Your task to perform on an android device: Open Reddit.com Image 0: 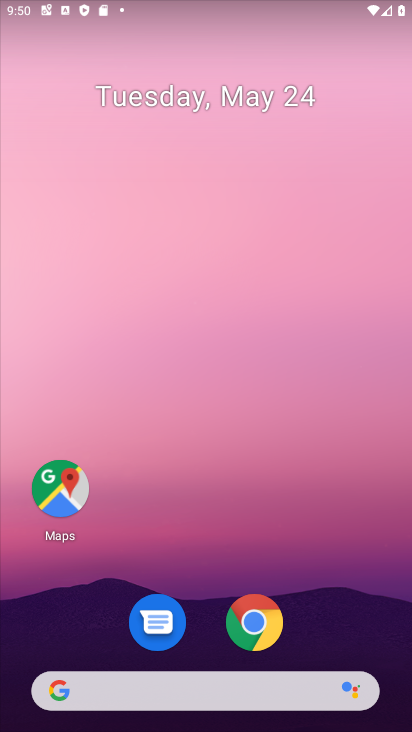
Step 0: drag from (271, 692) to (345, 240)
Your task to perform on an android device: Open Reddit.com Image 1: 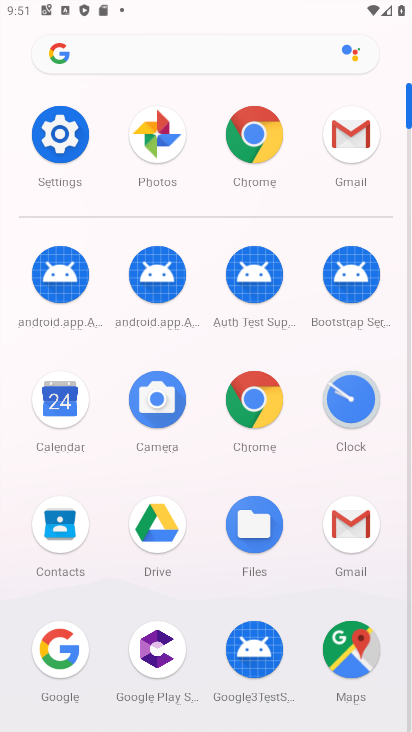
Step 1: click (247, 142)
Your task to perform on an android device: Open Reddit.com Image 2: 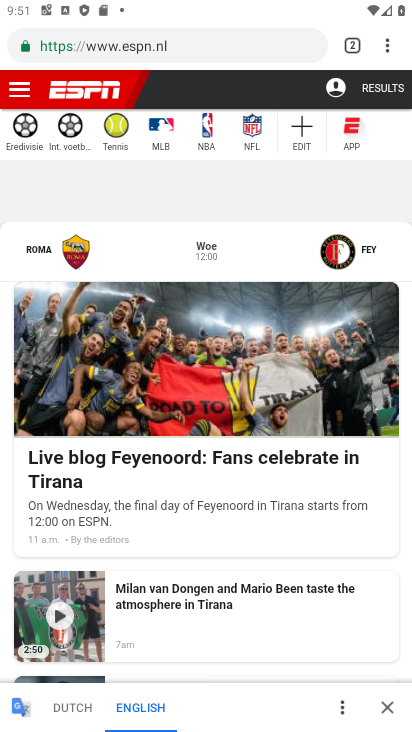
Step 2: click (161, 53)
Your task to perform on an android device: Open Reddit.com Image 3: 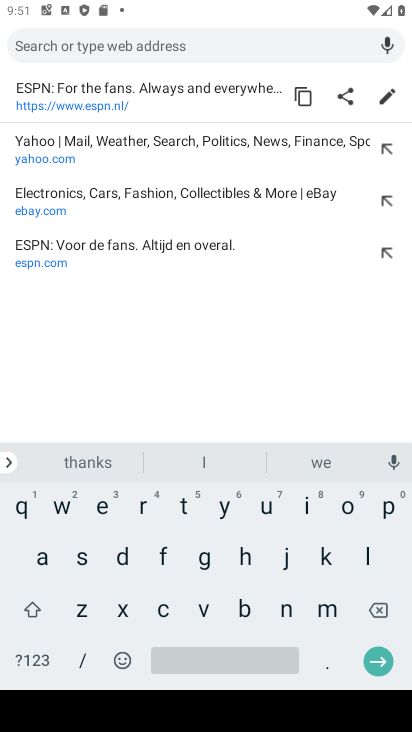
Step 3: click (138, 504)
Your task to perform on an android device: Open Reddit.com Image 4: 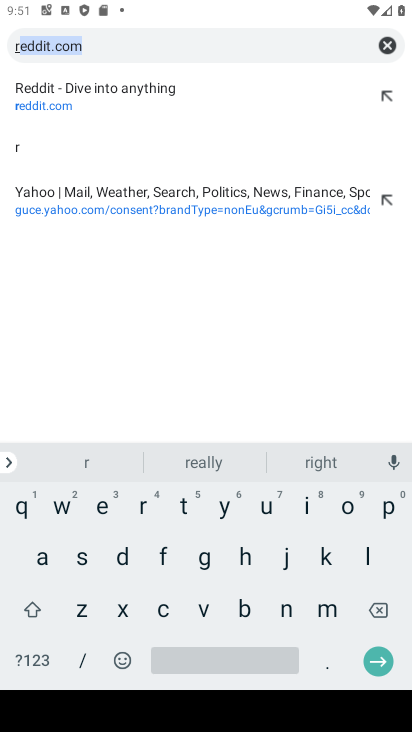
Step 4: click (120, 99)
Your task to perform on an android device: Open Reddit.com Image 5: 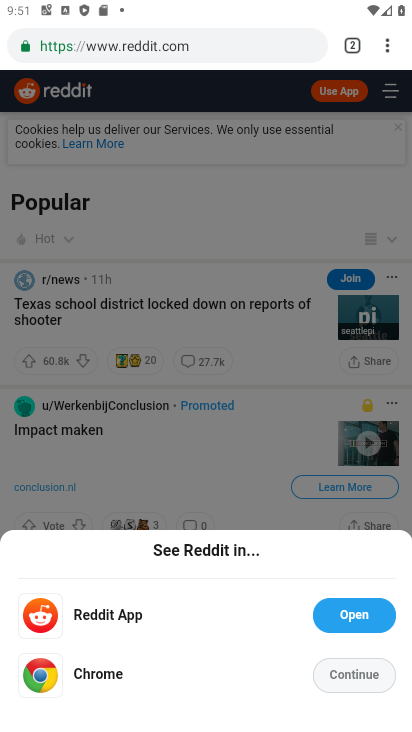
Step 5: click (194, 682)
Your task to perform on an android device: Open Reddit.com Image 6: 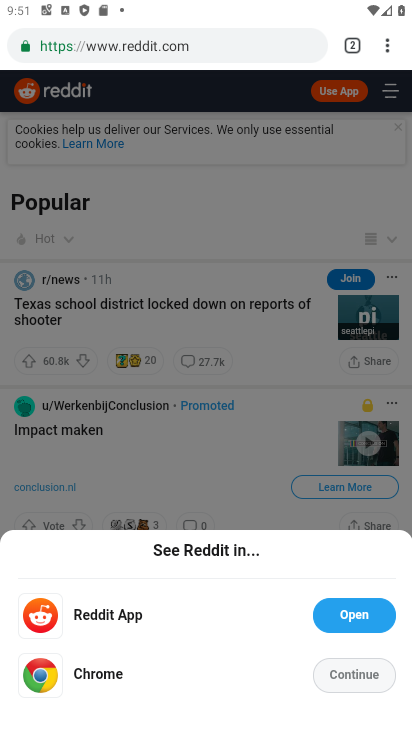
Step 6: click (340, 670)
Your task to perform on an android device: Open Reddit.com Image 7: 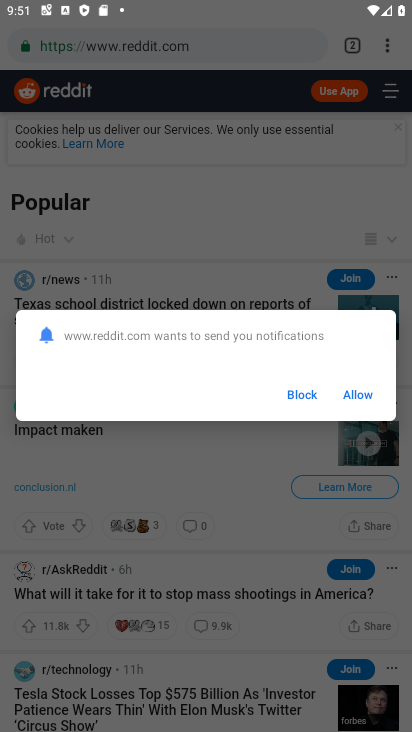
Step 7: click (288, 416)
Your task to perform on an android device: Open Reddit.com Image 8: 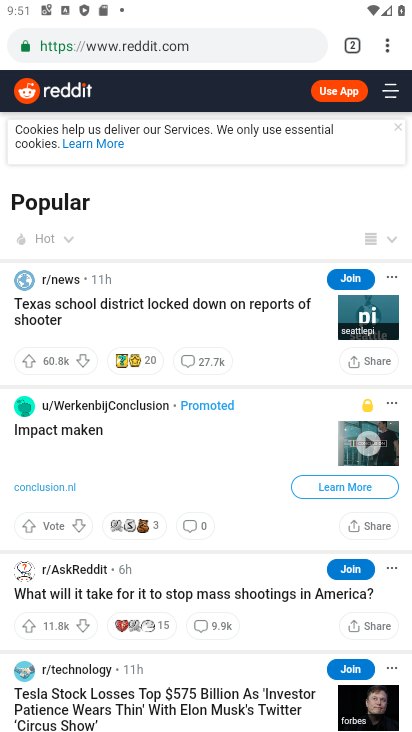
Step 8: task complete